Your task to perform on an android device: add a label to a message in the gmail app Image 0: 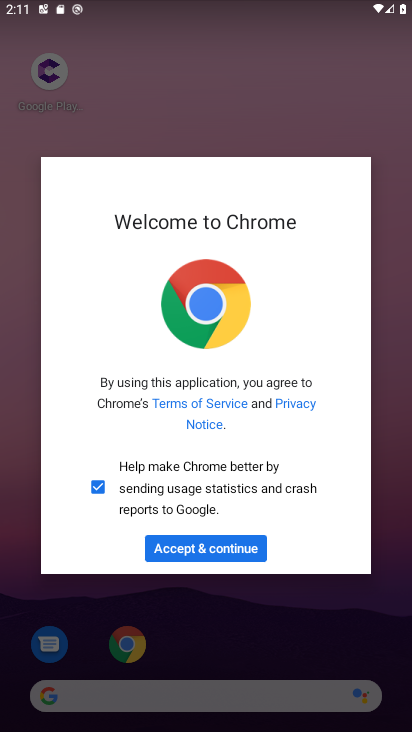
Step 0: click (407, 511)
Your task to perform on an android device: add a label to a message in the gmail app Image 1: 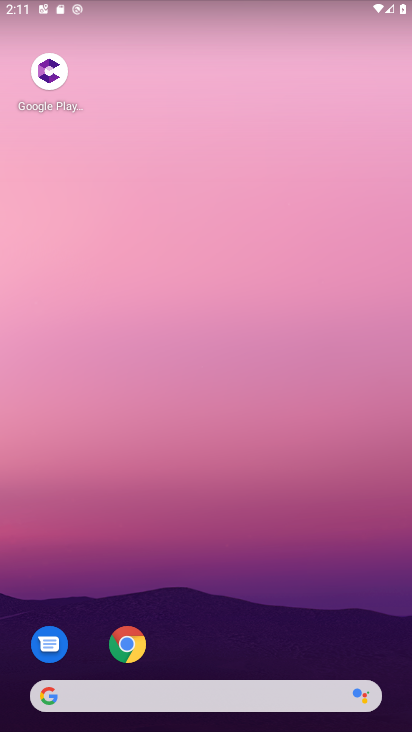
Step 1: press home button
Your task to perform on an android device: add a label to a message in the gmail app Image 2: 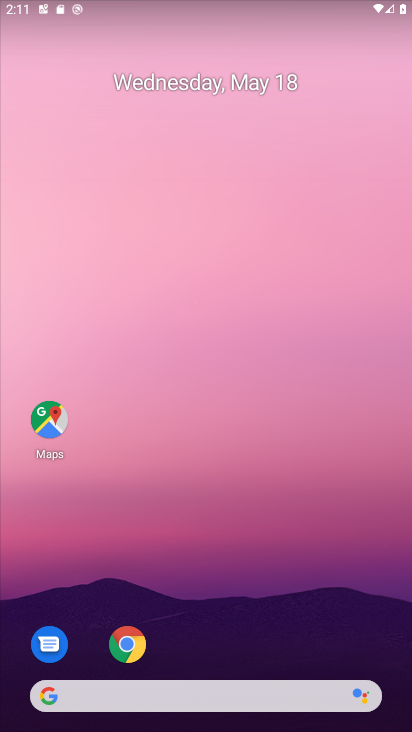
Step 2: drag from (178, 663) to (264, 265)
Your task to perform on an android device: add a label to a message in the gmail app Image 3: 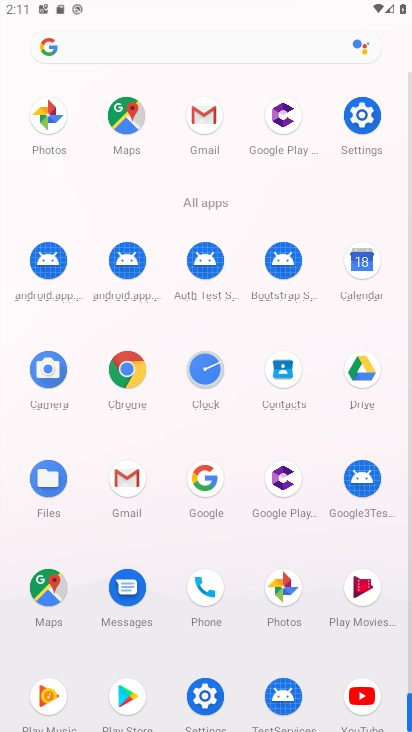
Step 3: click (137, 476)
Your task to perform on an android device: add a label to a message in the gmail app Image 4: 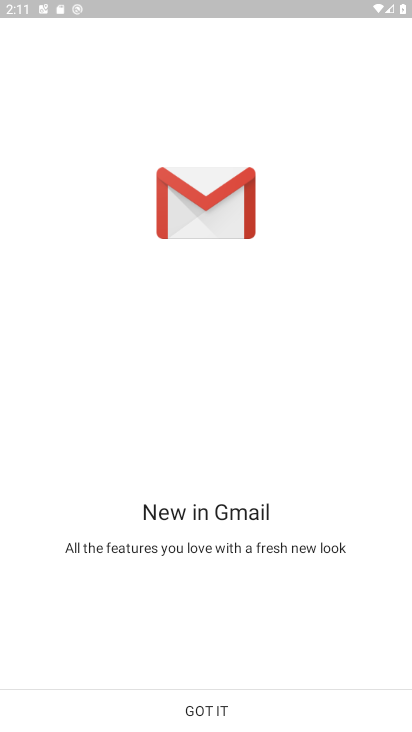
Step 4: click (137, 476)
Your task to perform on an android device: add a label to a message in the gmail app Image 5: 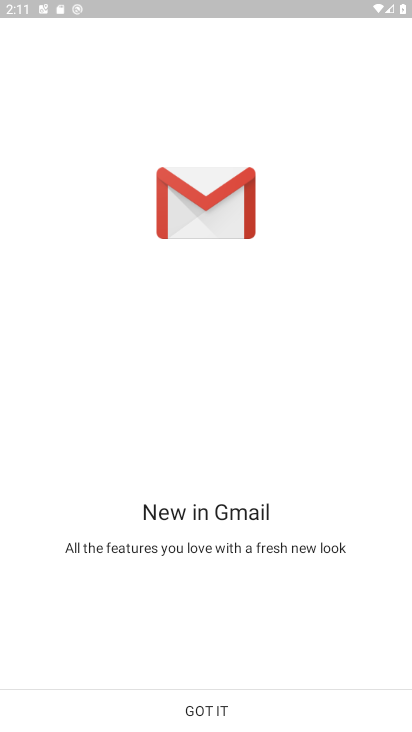
Step 5: click (236, 712)
Your task to perform on an android device: add a label to a message in the gmail app Image 6: 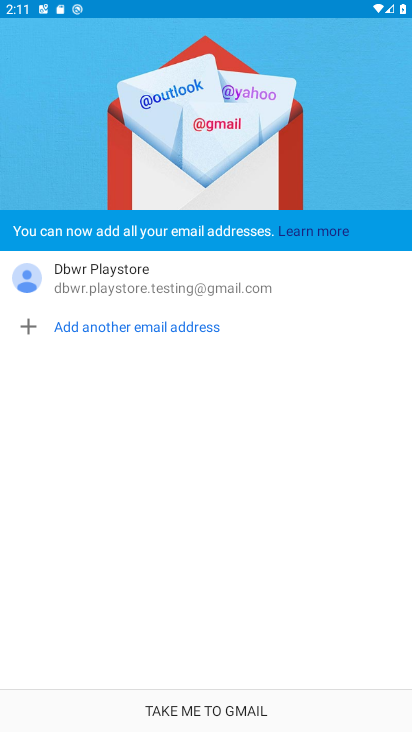
Step 6: click (236, 712)
Your task to perform on an android device: add a label to a message in the gmail app Image 7: 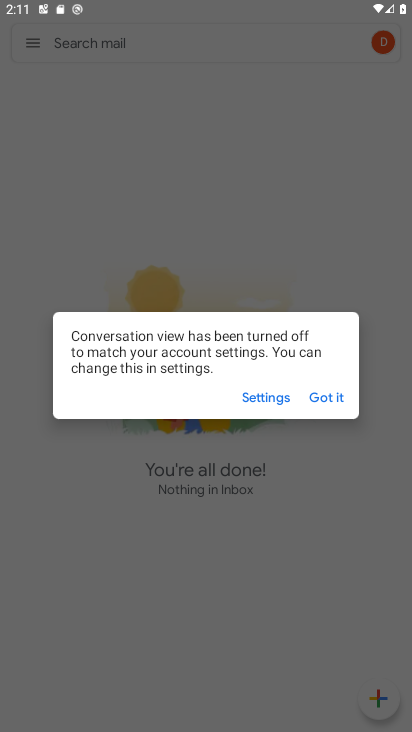
Step 7: click (327, 387)
Your task to perform on an android device: add a label to a message in the gmail app Image 8: 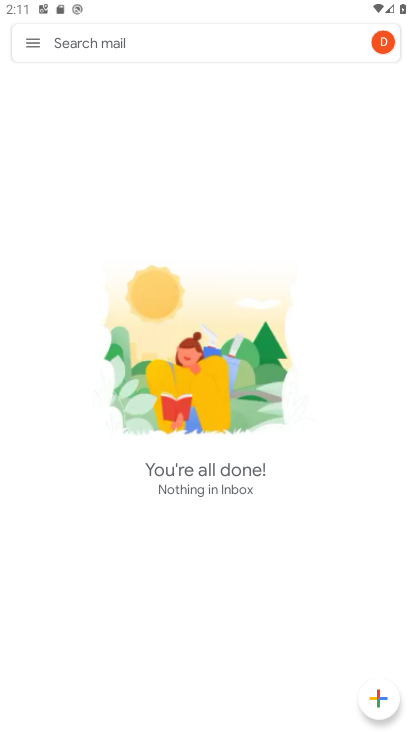
Step 8: click (41, 43)
Your task to perform on an android device: add a label to a message in the gmail app Image 9: 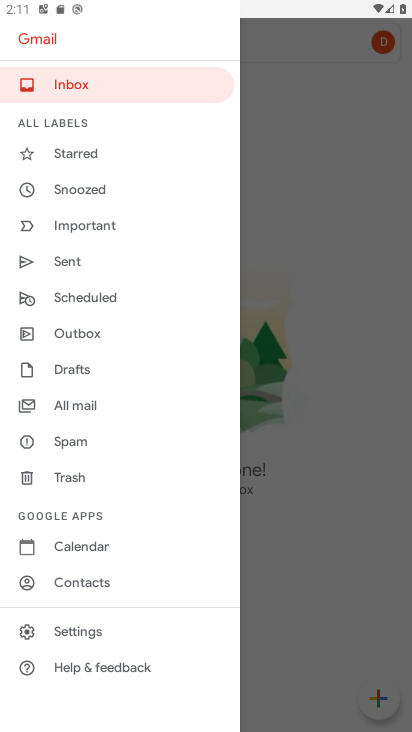
Step 9: click (134, 404)
Your task to perform on an android device: add a label to a message in the gmail app Image 10: 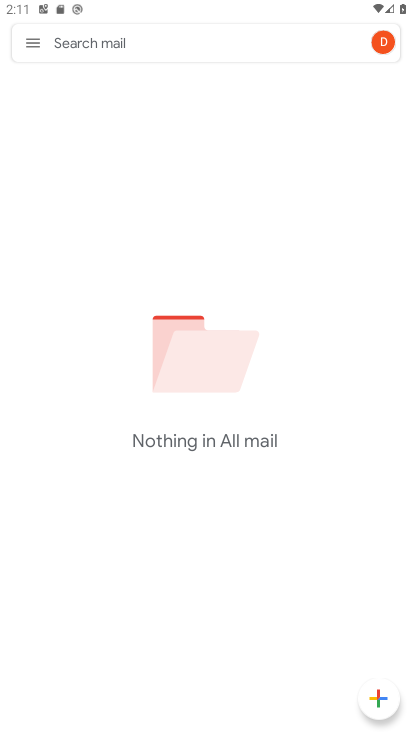
Step 10: task complete